Your task to perform on an android device: toggle javascript in the chrome app Image 0: 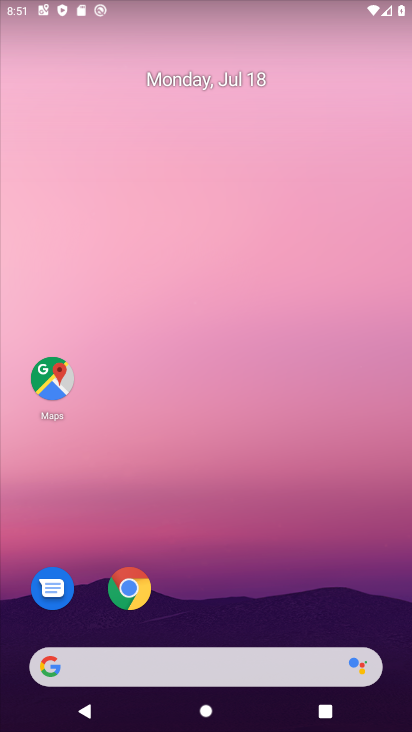
Step 0: click (129, 585)
Your task to perform on an android device: toggle javascript in the chrome app Image 1: 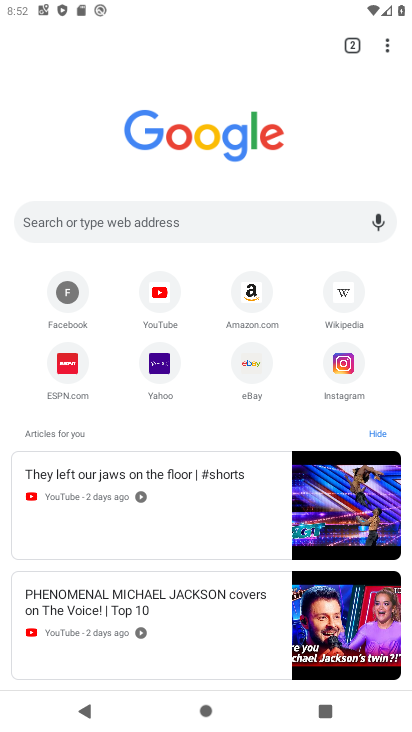
Step 1: click (388, 52)
Your task to perform on an android device: toggle javascript in the chrome app Image 2: 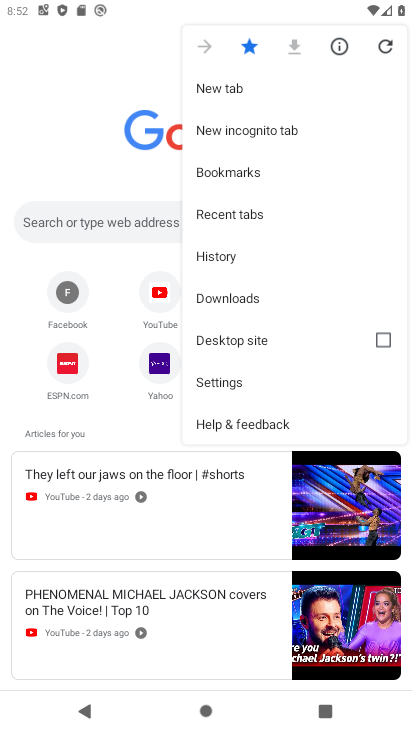
Step 2: click (252, 379)
Your task to perform on an android device: toggle javascript in the chrome app Image 3: 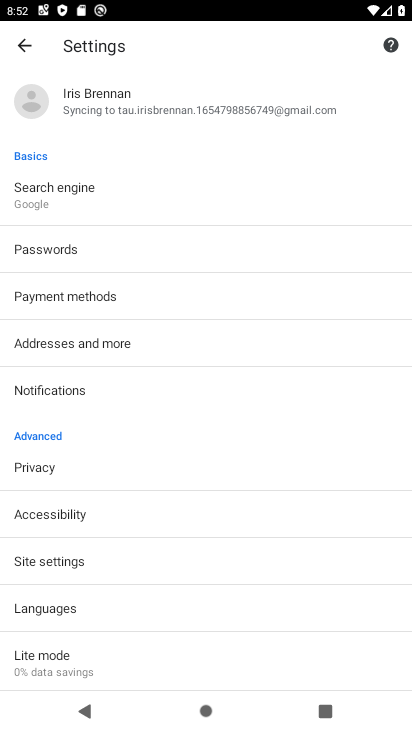
Step 3: click (145, 557)
Your task to perform on an android device: toggle javascript in the chrome app Image 4: 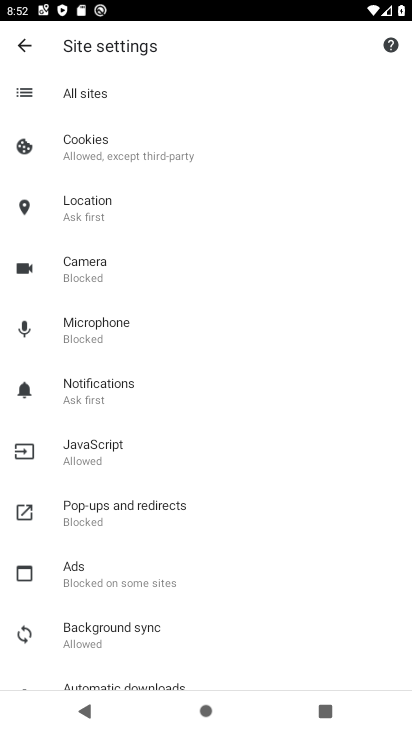
Step 4: click (127, 443)
Your task to perform on an android device: toggle javascript in the chrome app Image 5: 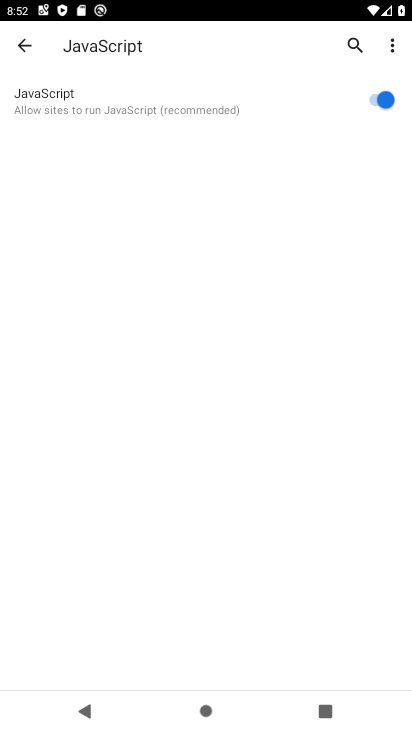
Step 5: click (369, 96)
Your task to perform on an android device: toggle javascript in the chrome app Image 6: 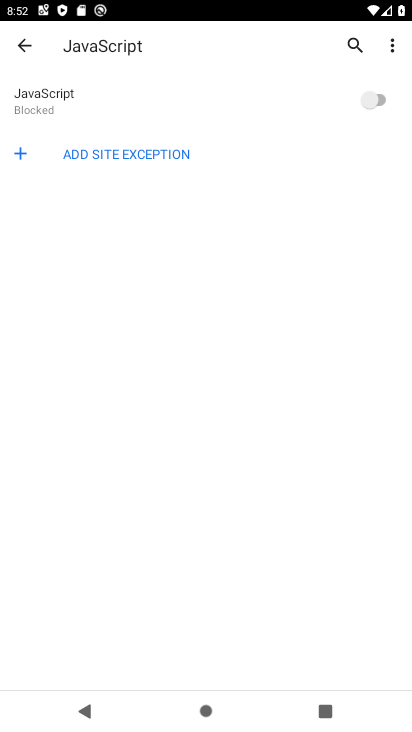
Step 6: task complete